Your task to perform on an android device: turn on sleep mode Image 0: 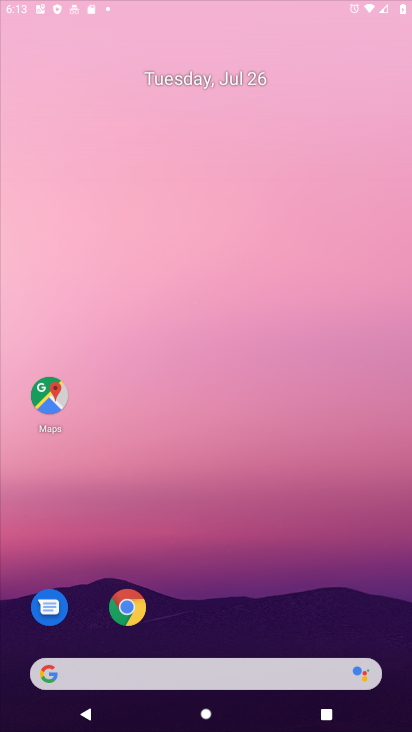
Step 0: press home button
Your task to perform on an android device: turn on sleep mode Image 1: 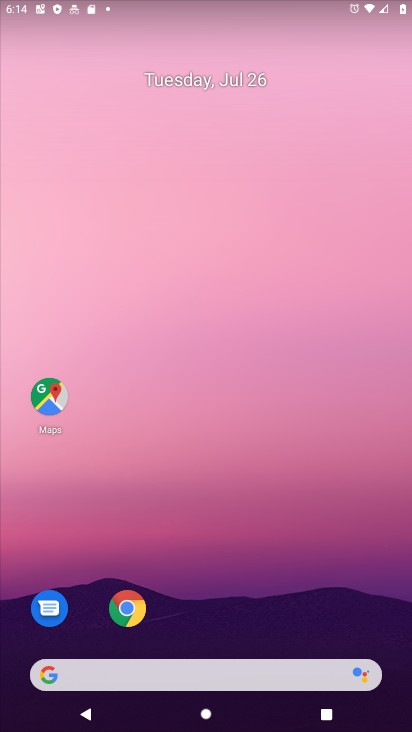
Step 1: drag from (241, 645) to (211, 245)
Your task to perform on an android device: turn on sleep mode Image 2: 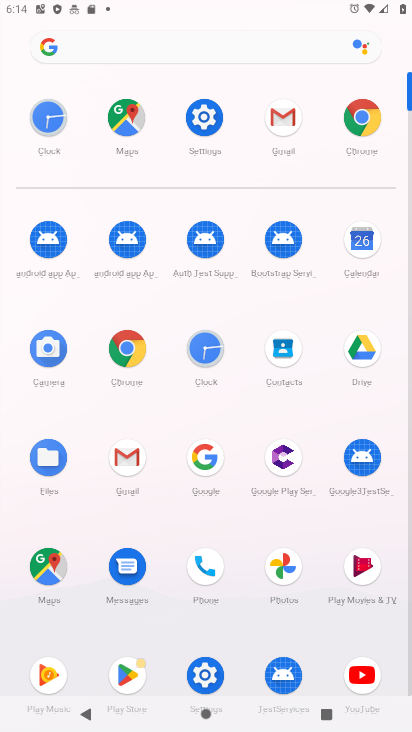
Step 2: click (216, 120)
Your task to perform on an android device: turn on sleep mode Image 3: 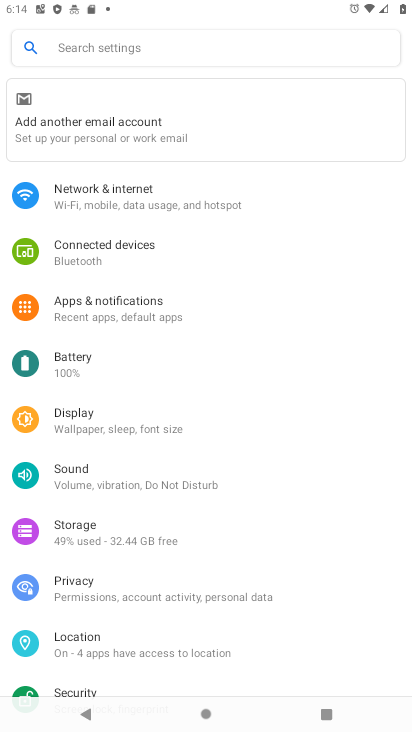
Step 3: click (73, 419)
Your task to perform on an android device: turn on sleep mode Image 4: 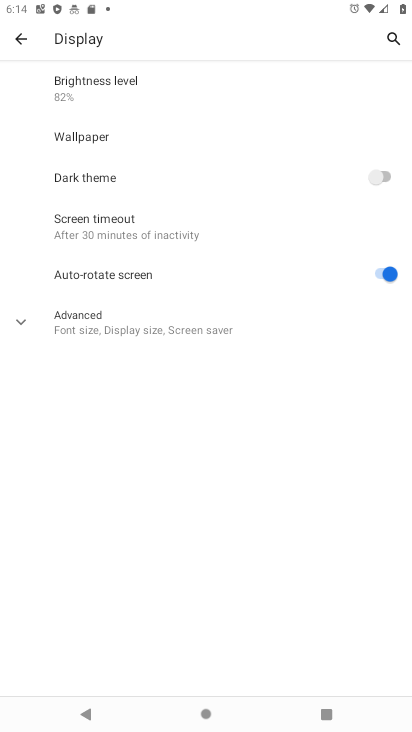
Step 4: task complete